Your task to perform on an android device: turn smart compose on in the gmail app Image 0: 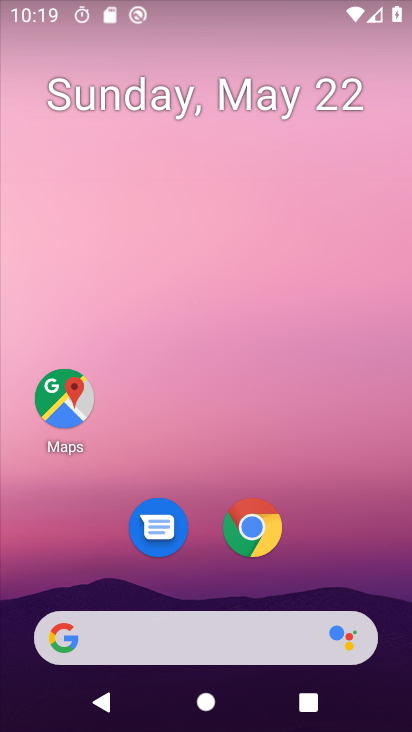
Step 0: drag from (295, 625) to (280, 59)
Your task to perform on an android device: turn smart compose on in the gmail app Image 1: 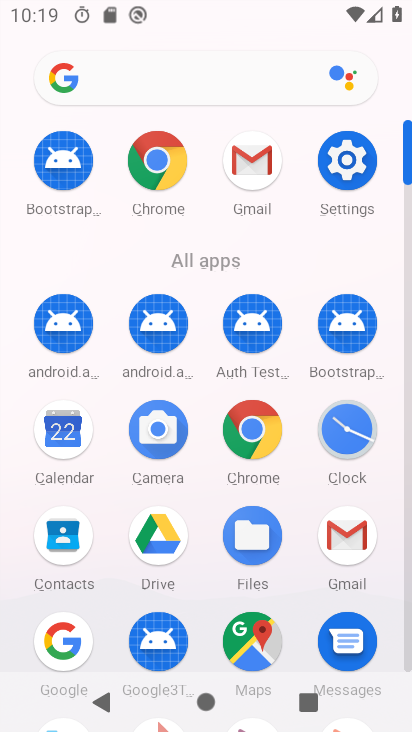
Step 1: drag from (245, 580) to (306, 11)
Your task to perform on an android device: turn smart compose on in the gmail app Image 2: 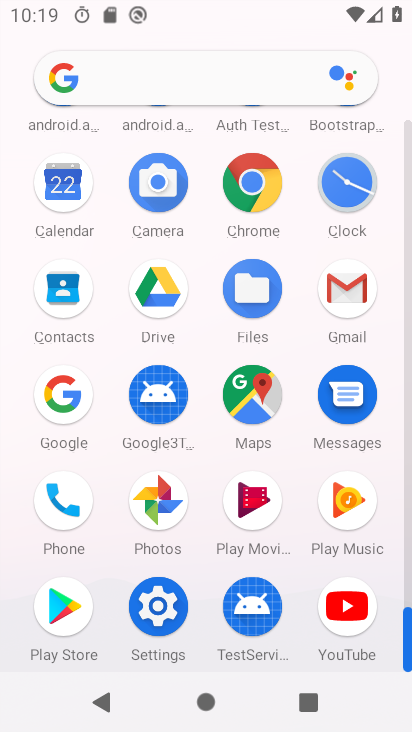
Step 2: click (364, 307)
Your task to perform on an android device: turn smart compose on in the gmail app Image 3: 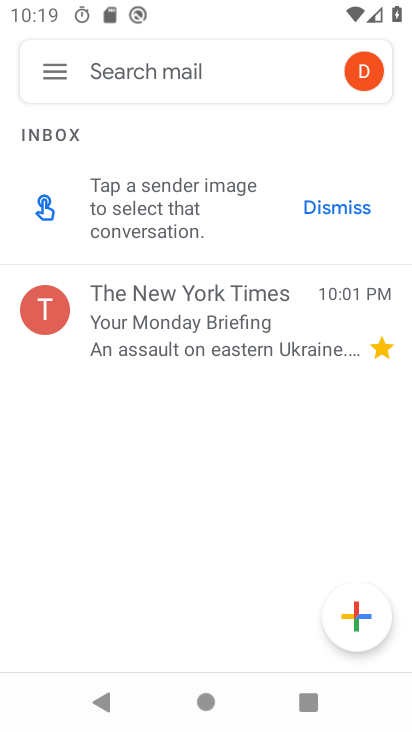
Step 3: click (51, 70)
Your task to perform on an android device: turn smart compose on in the gmail app Image 4: 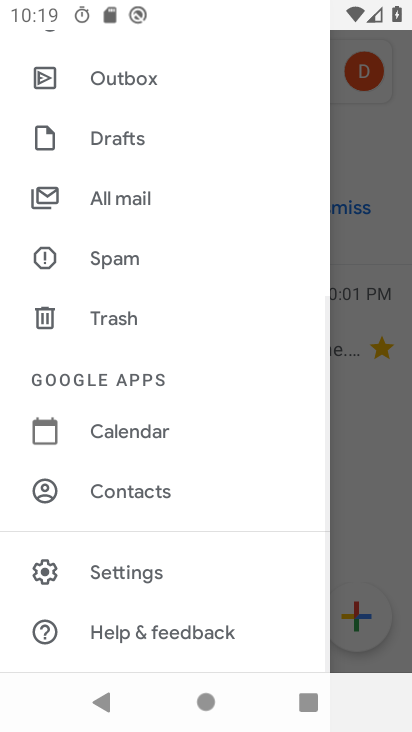
Step 4: drag from (113, 538) to (154, 253)
Your task to perform on an android device: turn smart compose on in the gmail app Image 5: 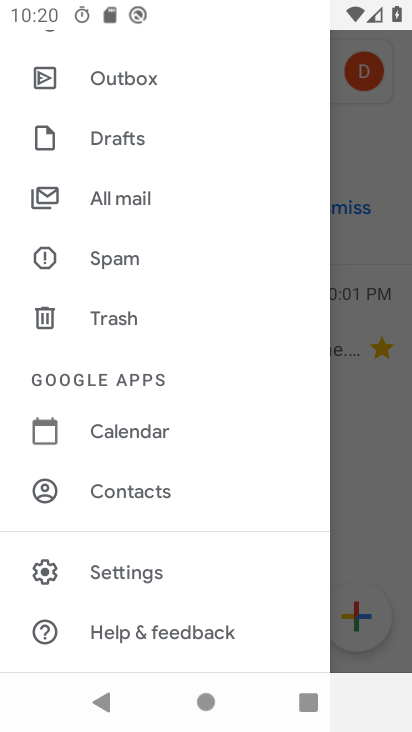
Step 5: click (165, 575)
Your task to perform on an android device: turn smart compose on in the gmail app Image 6: 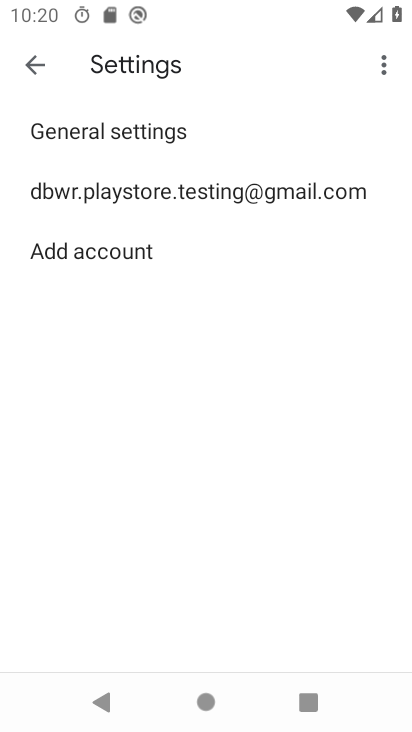
Step 6: click (134, 198)
Your task to perform on an android device: turn smart compose on in the gmail app Image 7: 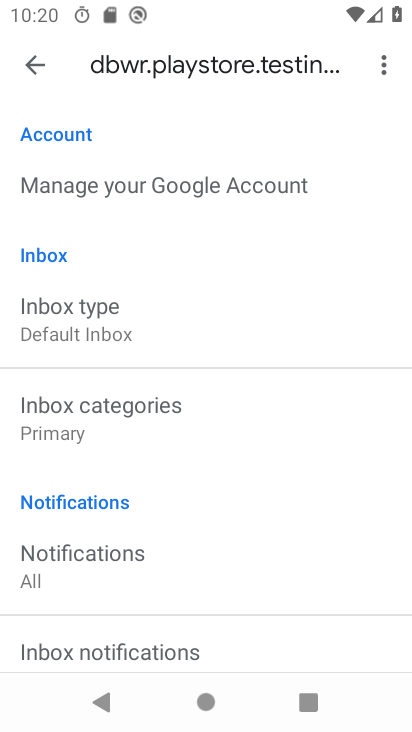
Step 7: task complete